Your task to perform on an android device: Go to notification settings Image 0: 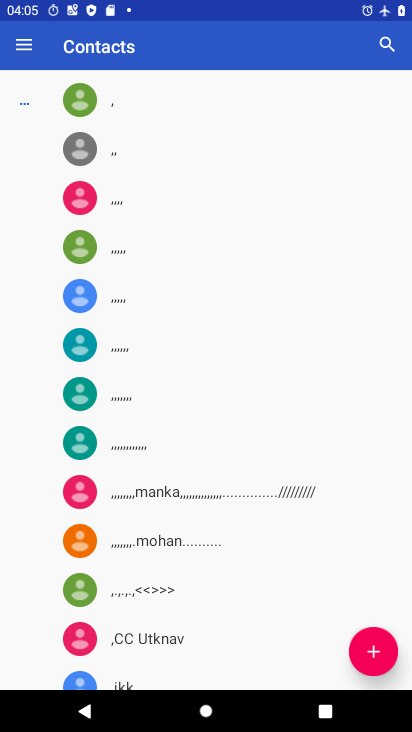
Step 0: press home button
Your task to perform on an android device: Go to notification settings Image 1: 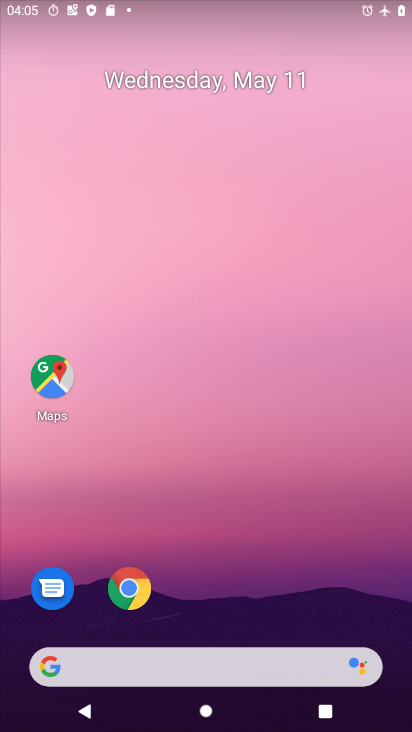
Step 1: drag from (200, 594) to (173, 244)
Your task to perform on an android device: Go to notification settings Image 2: 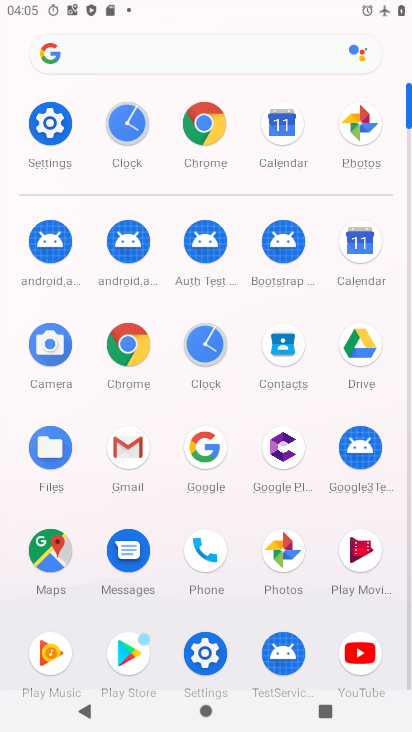
Step 2: click (67, 122)
Your task to perform on an android device: Go to notification settings Image 3: 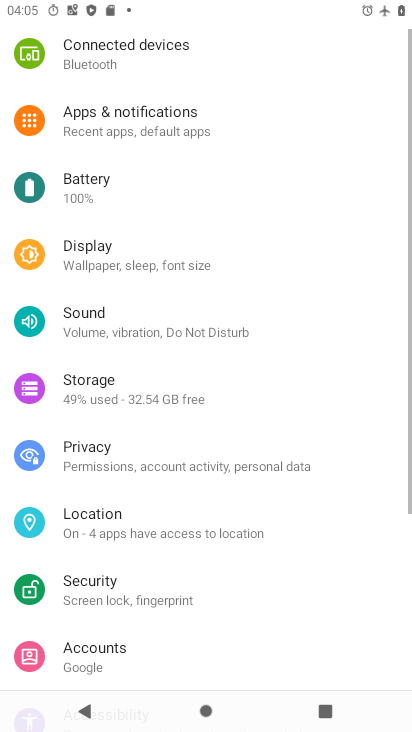
Step 3: click (76, 124)
Your task to perform on an android device: Go to notification settings Image 4: 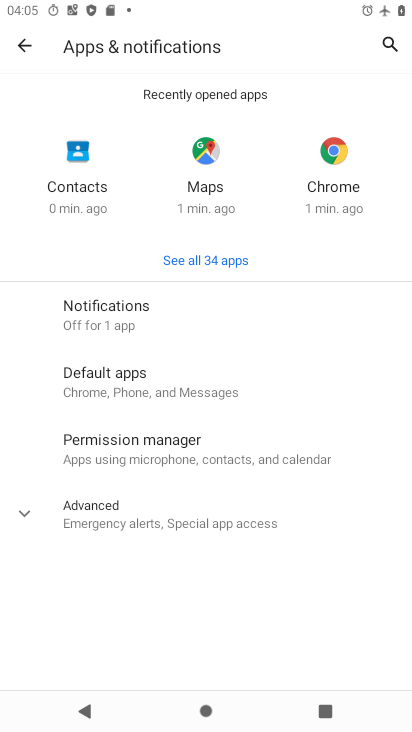
Step 4: click (149, 304)
Your task to perform on an android device: Go to notification settings Image 5: 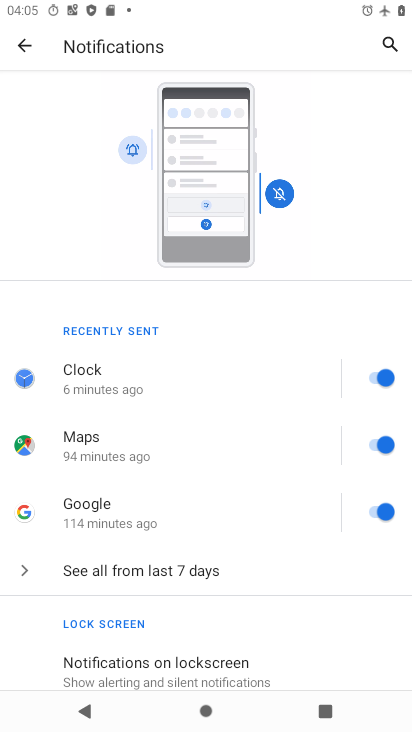
Step 5: task complete